Your task to perform on an android device: turn on data saver in the chrome app Image 0: 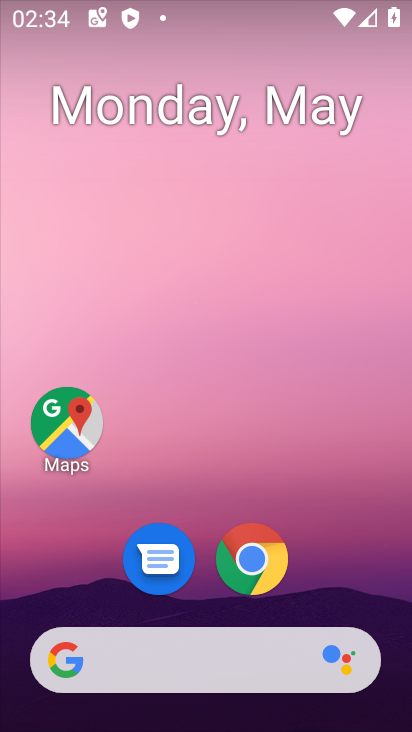
Step 0: click (267, 552)
Your task to perform on an android device: turn on data saver in the chrome app Image 1: 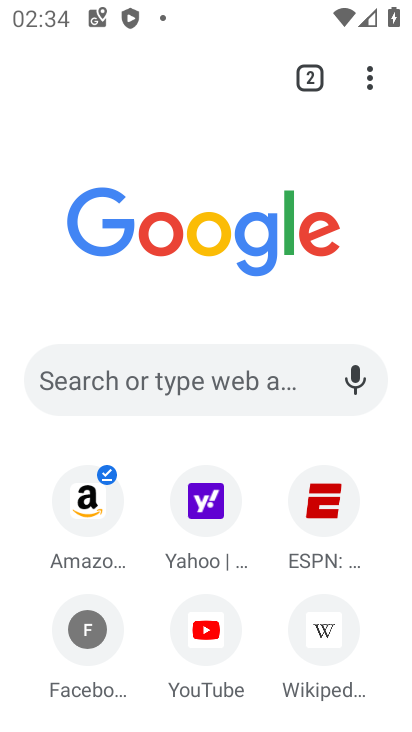
Step 1: click (367, 80)
Your task to perform on an android device: turn on data saver in the chrome app Image 2: 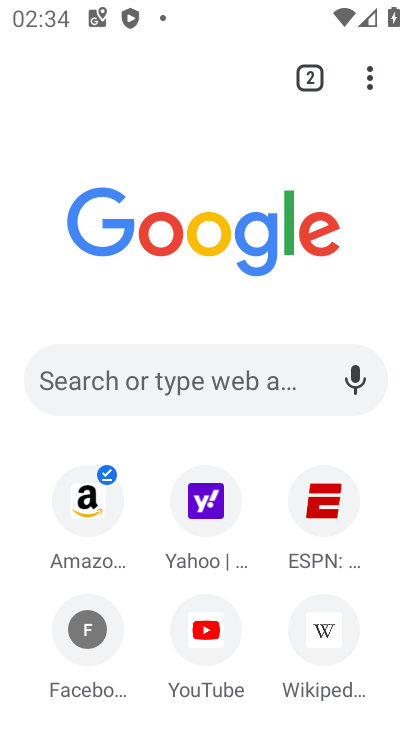
Step 2: click (379, 74)
Your task to perform on an android device: turn on data saver in the chrome app Image 3: 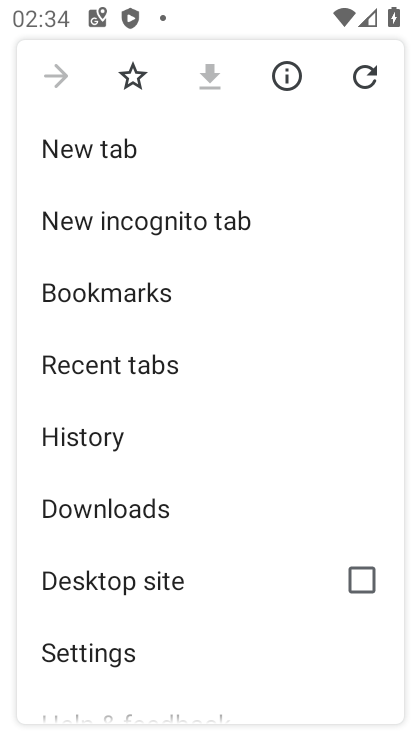
Step 3: click (164, 651)
Your task to perform on an android device: turn on data saver in the chrome app Image 4: 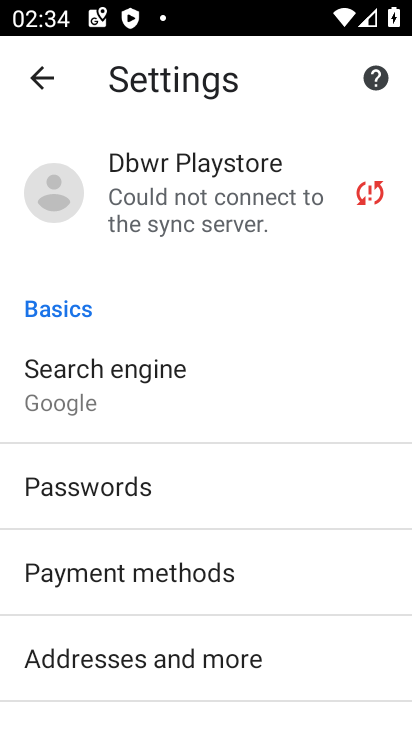
Step 4: drag from (234, 655) to (243, 31)
Your task to perform on an android device: turn on data saver in the chrome app Image 5: 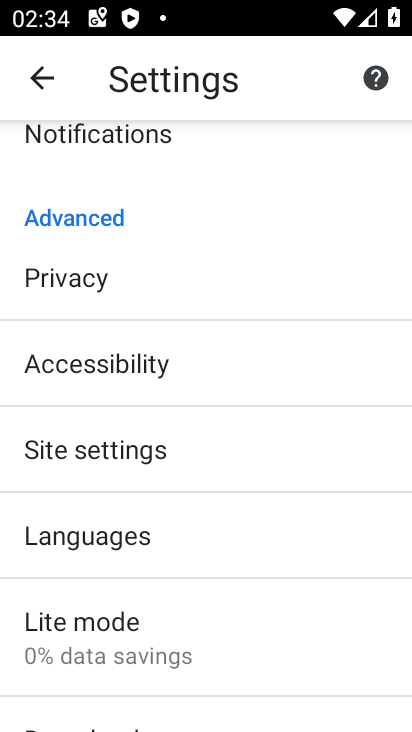
Step 5: click (138, 657)
Your task to perform on an android device: turn on data saver in the chrome app Image 6: 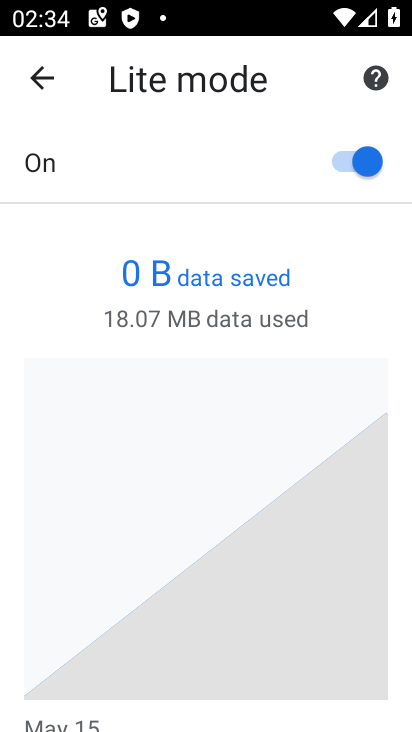
Step 6: task complete